Your task to perform on an android device: open app "AliExpress" Image 0: 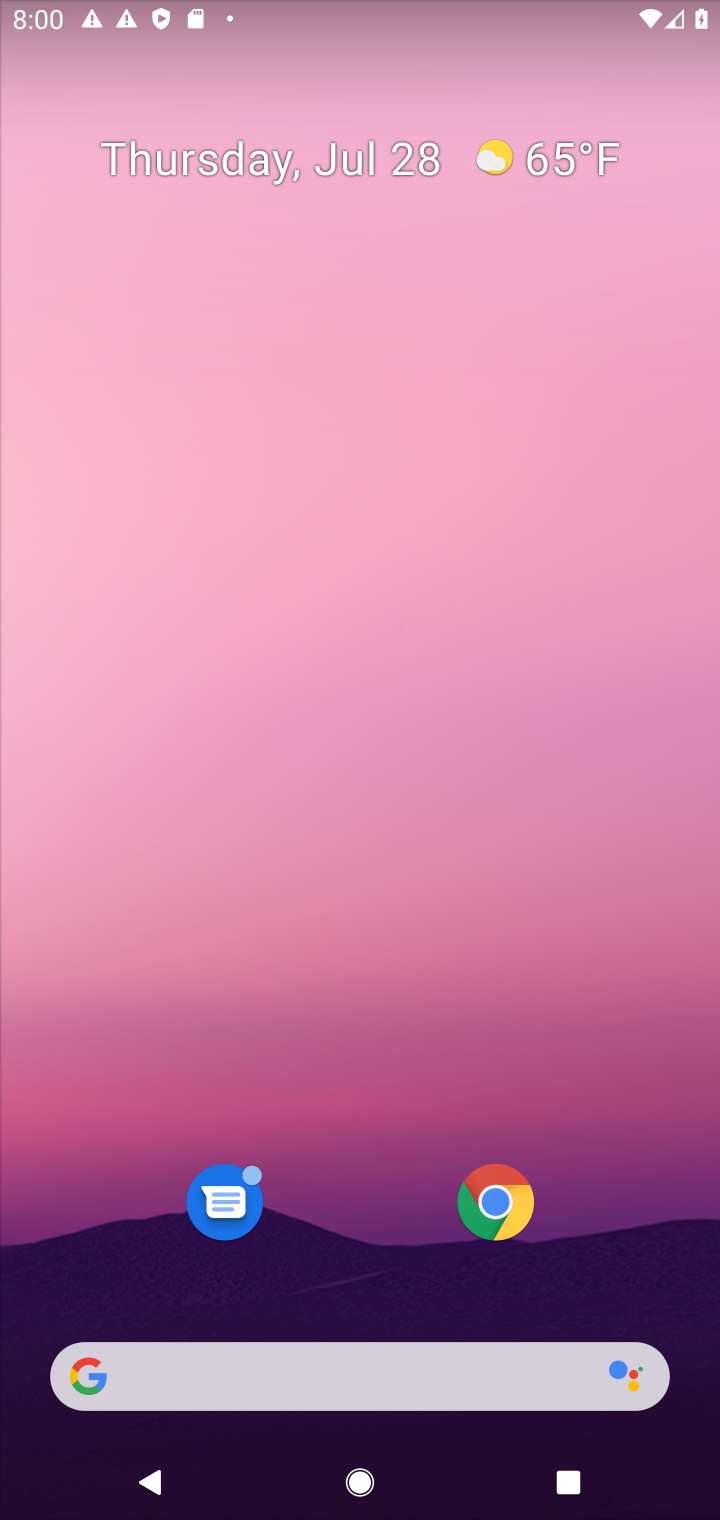
Step 0: press home button
Your task to perform on an android device: open app "AliExpress" Image 1: 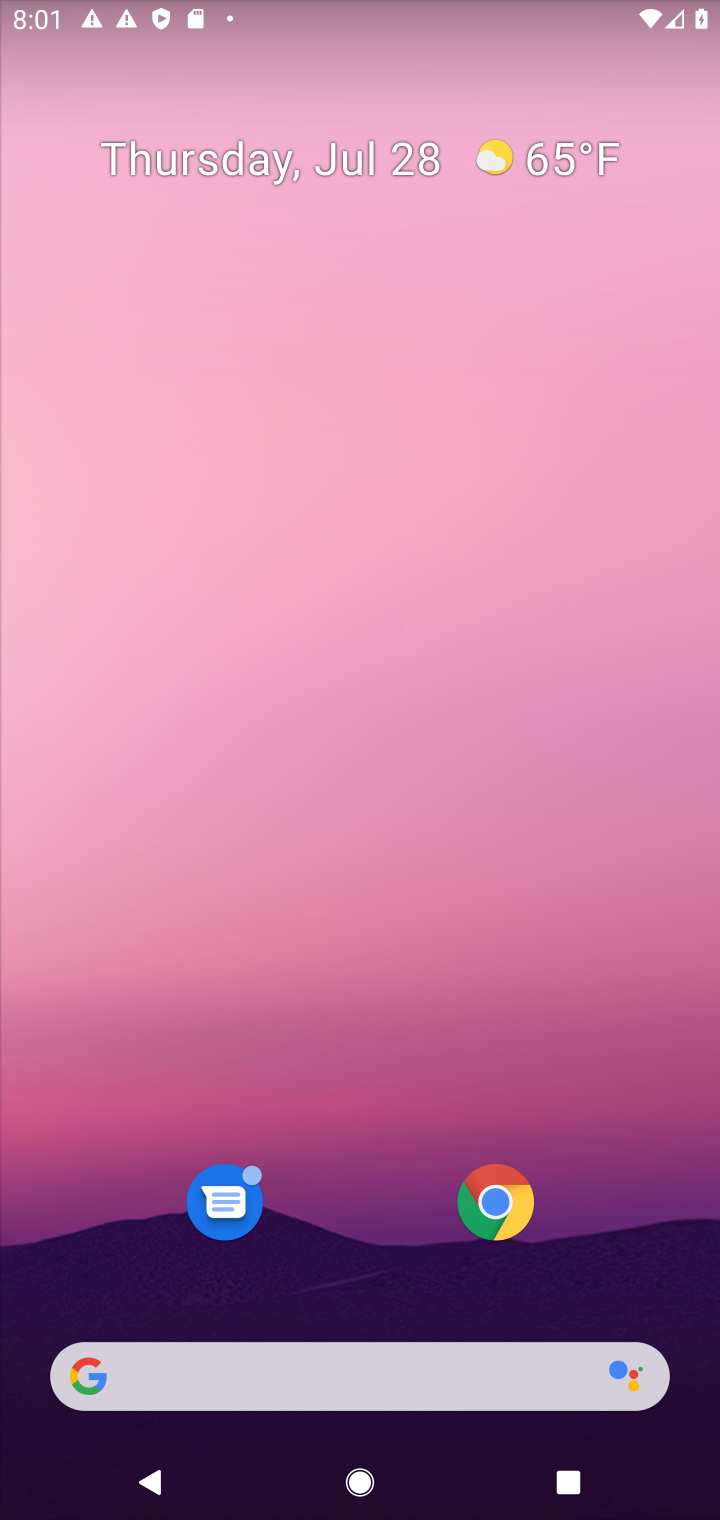
Step 1: drag from (380, 1283) to (424, 49)
Your task to perform on an android device: open app "AliExpress" Image 2: 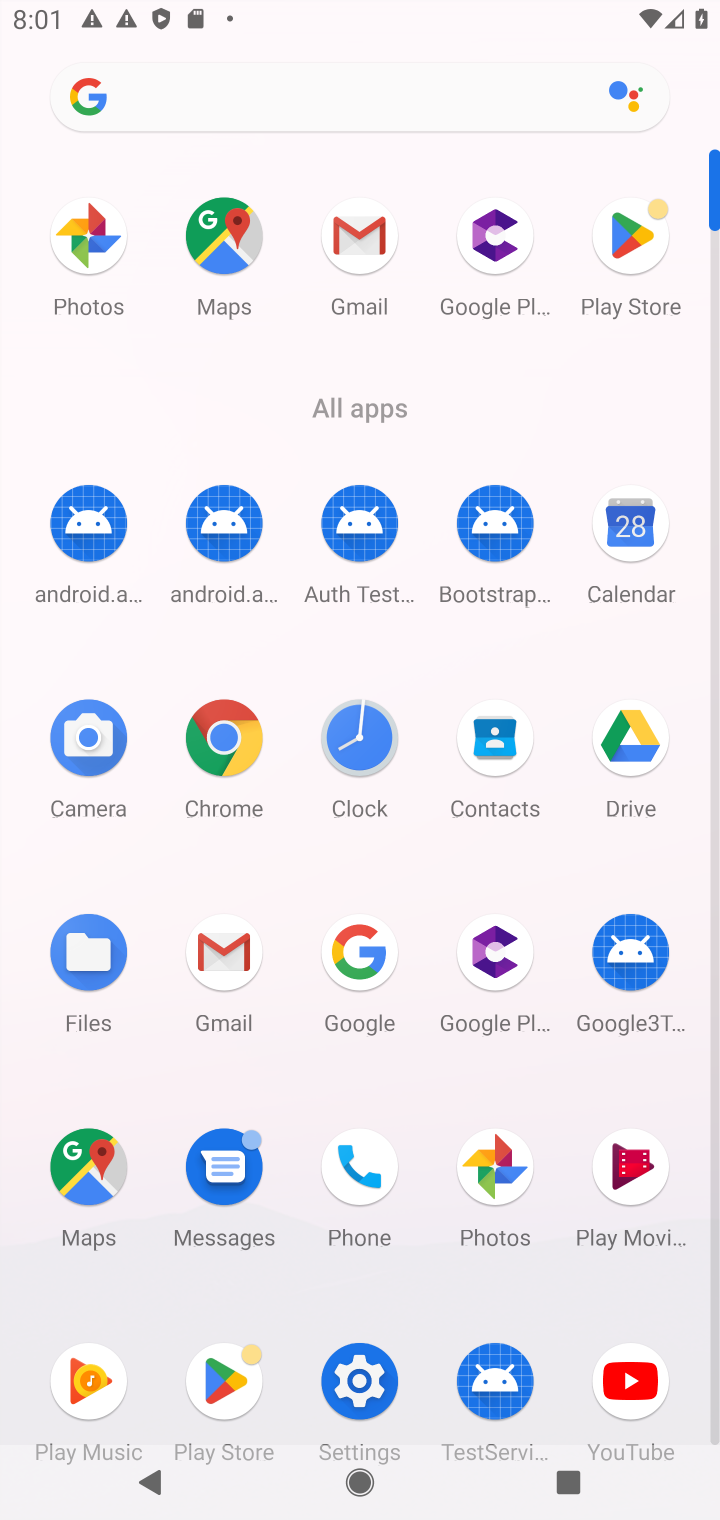
Step 2: click (217, 1373)
Your task to perform on an android device: open app "AliExpress" Image 3: 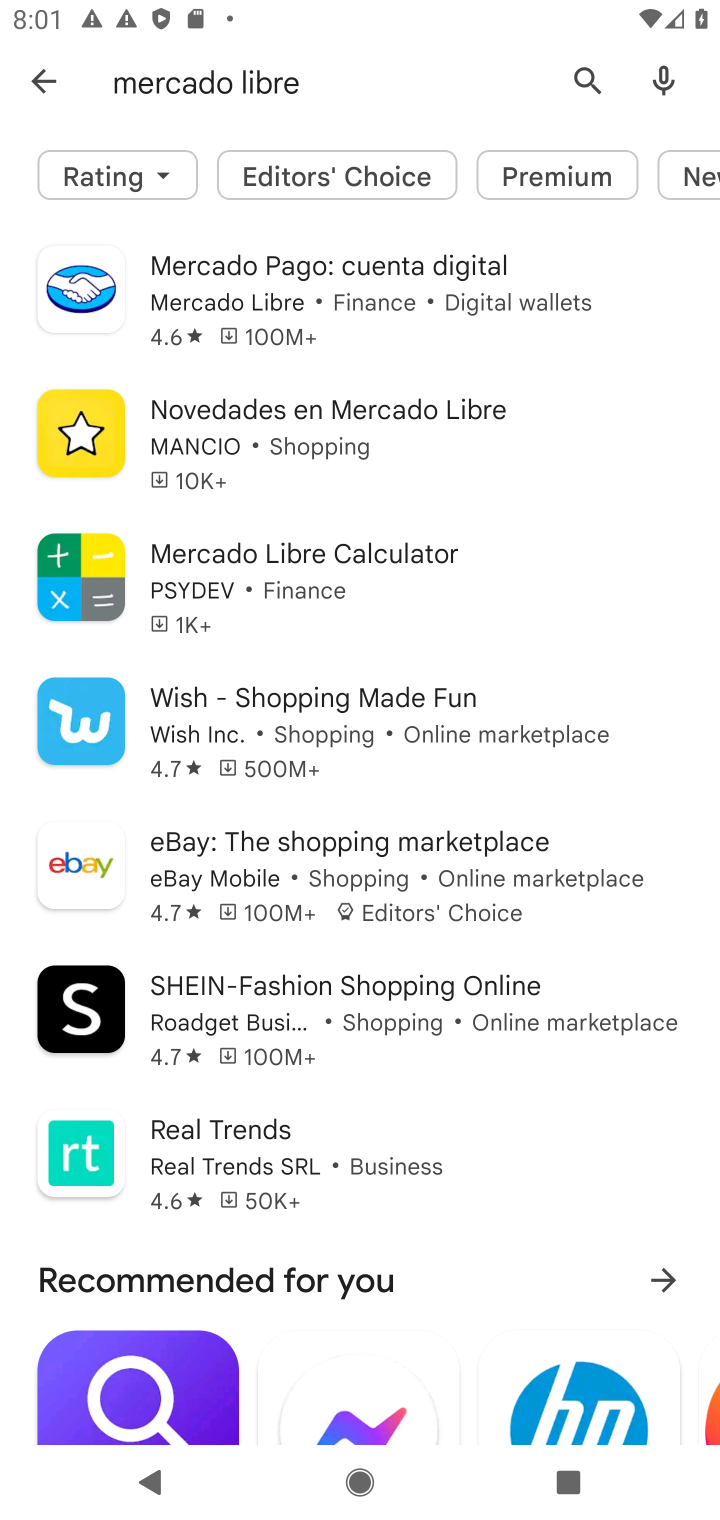
Step 3: click (586, 83)
Your task to perform on an android device: open app "AliExpress" Image 4: 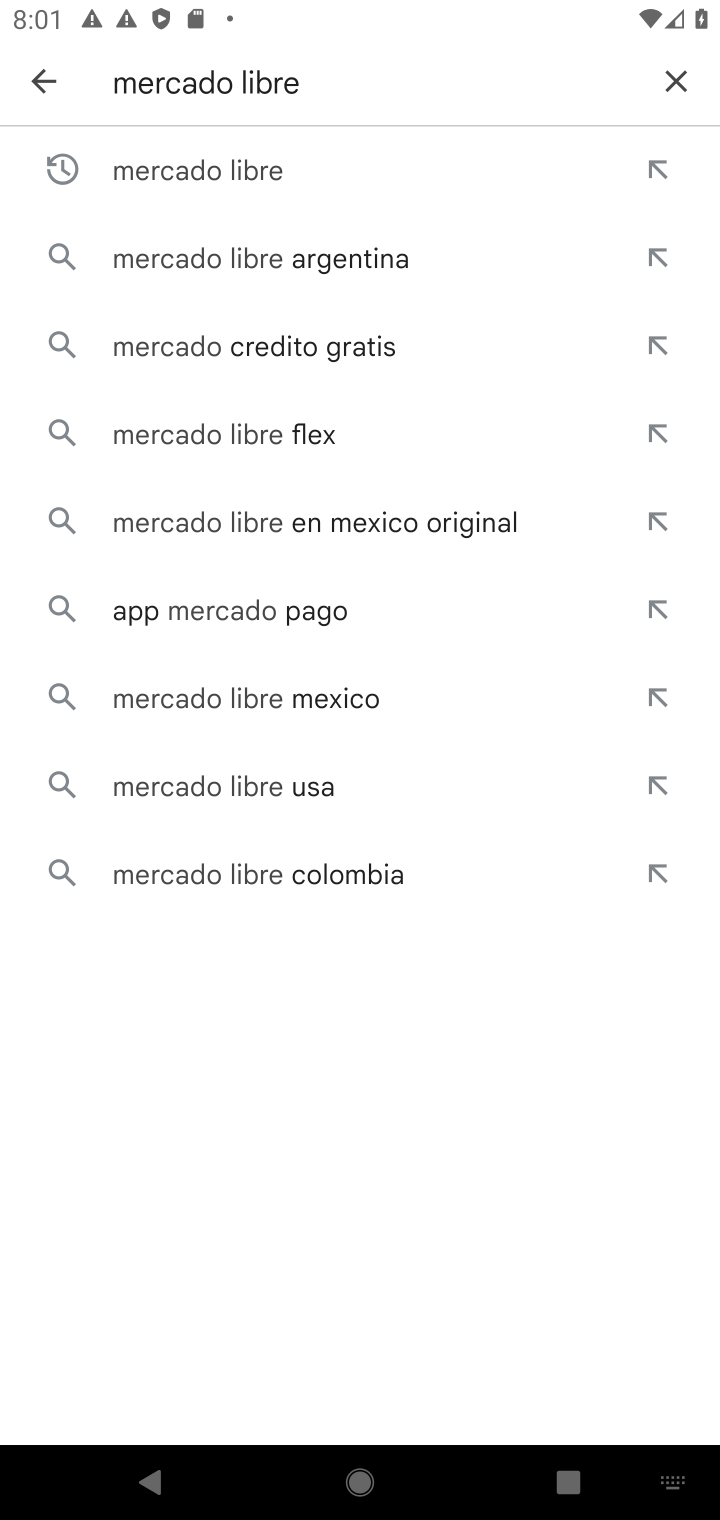
Step 4: click (673, 93)
Your task to perform on an android device: open app "AliExpress" Image 5: 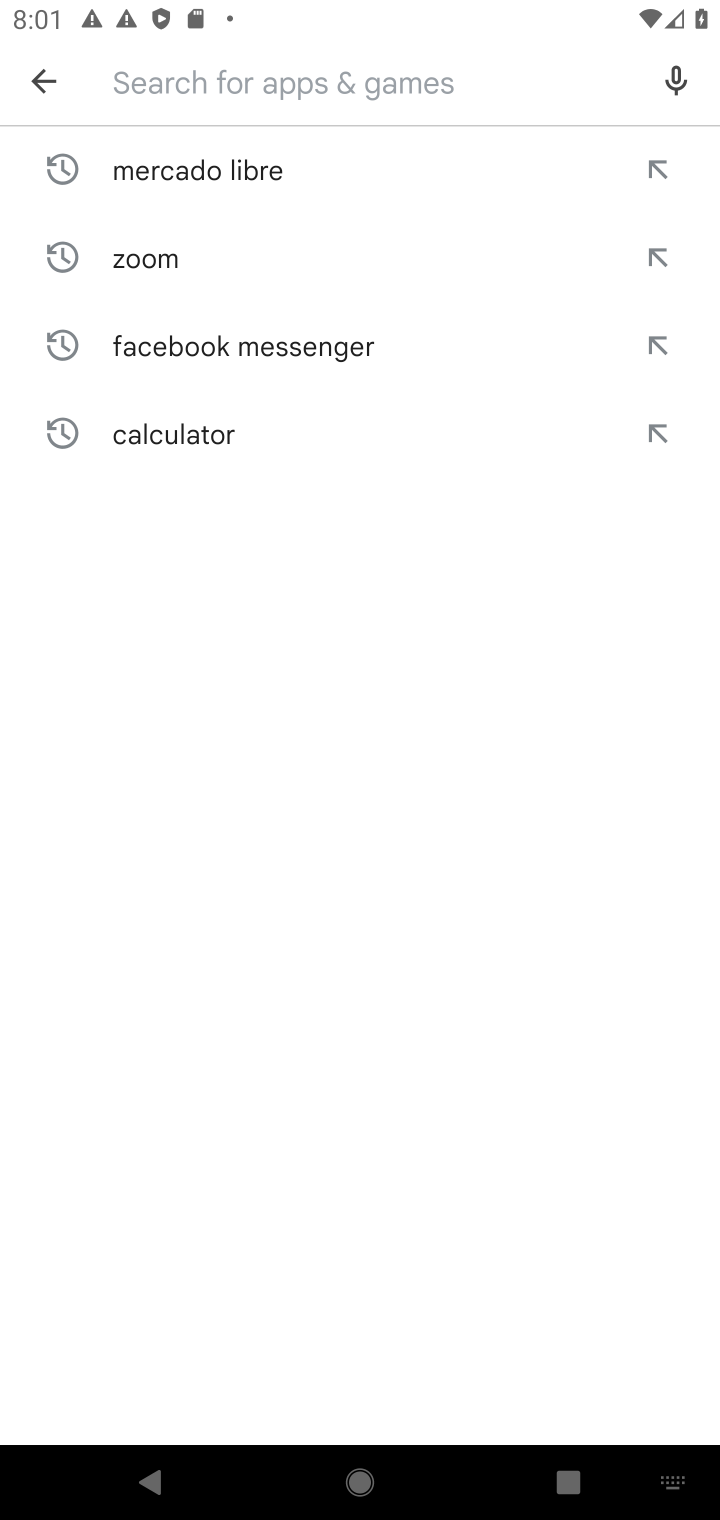
Step 5: type "AliExpress"
Your task to perform on an android device: open app "AliExpress" Image 6: 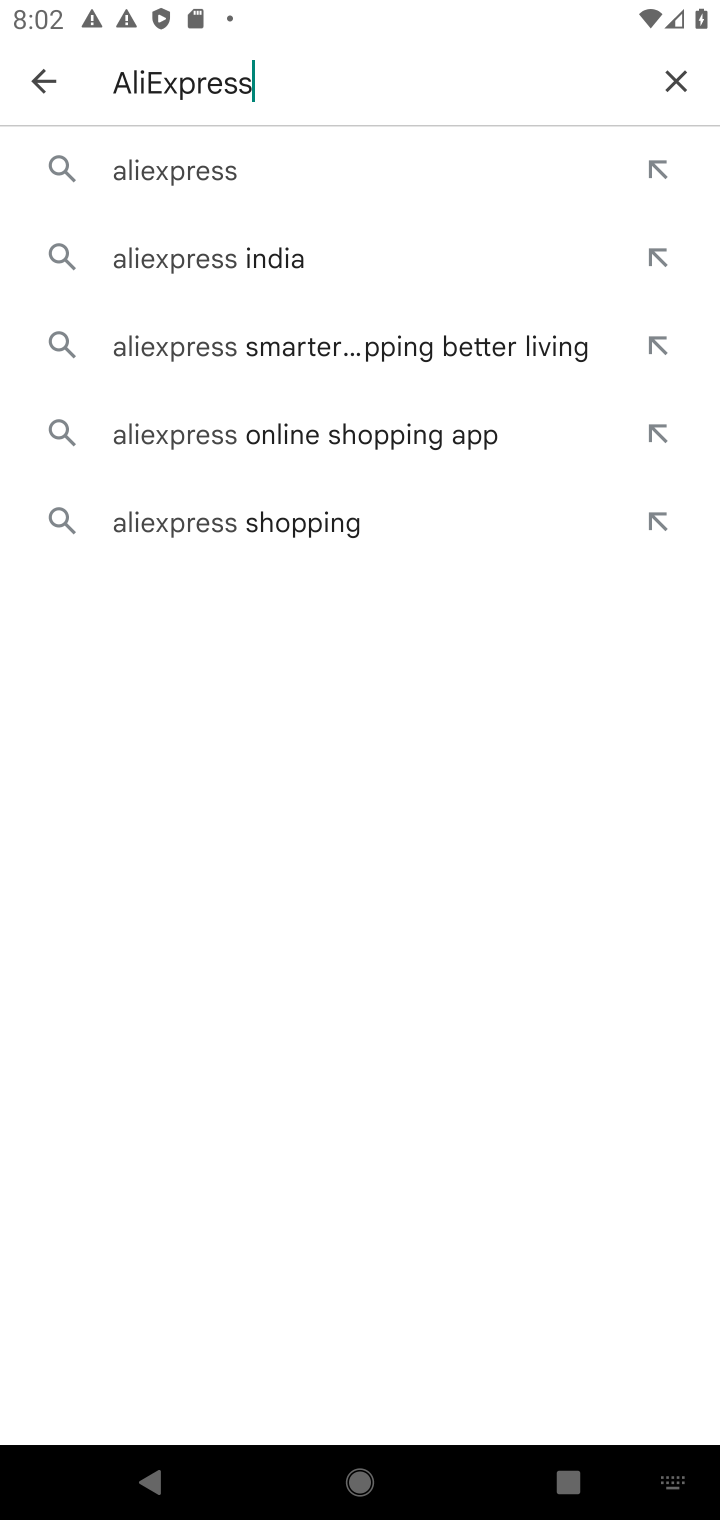
Step 6: click (247, 169)
Your task to perform on an android device: open app "AliExpress" Image 7: 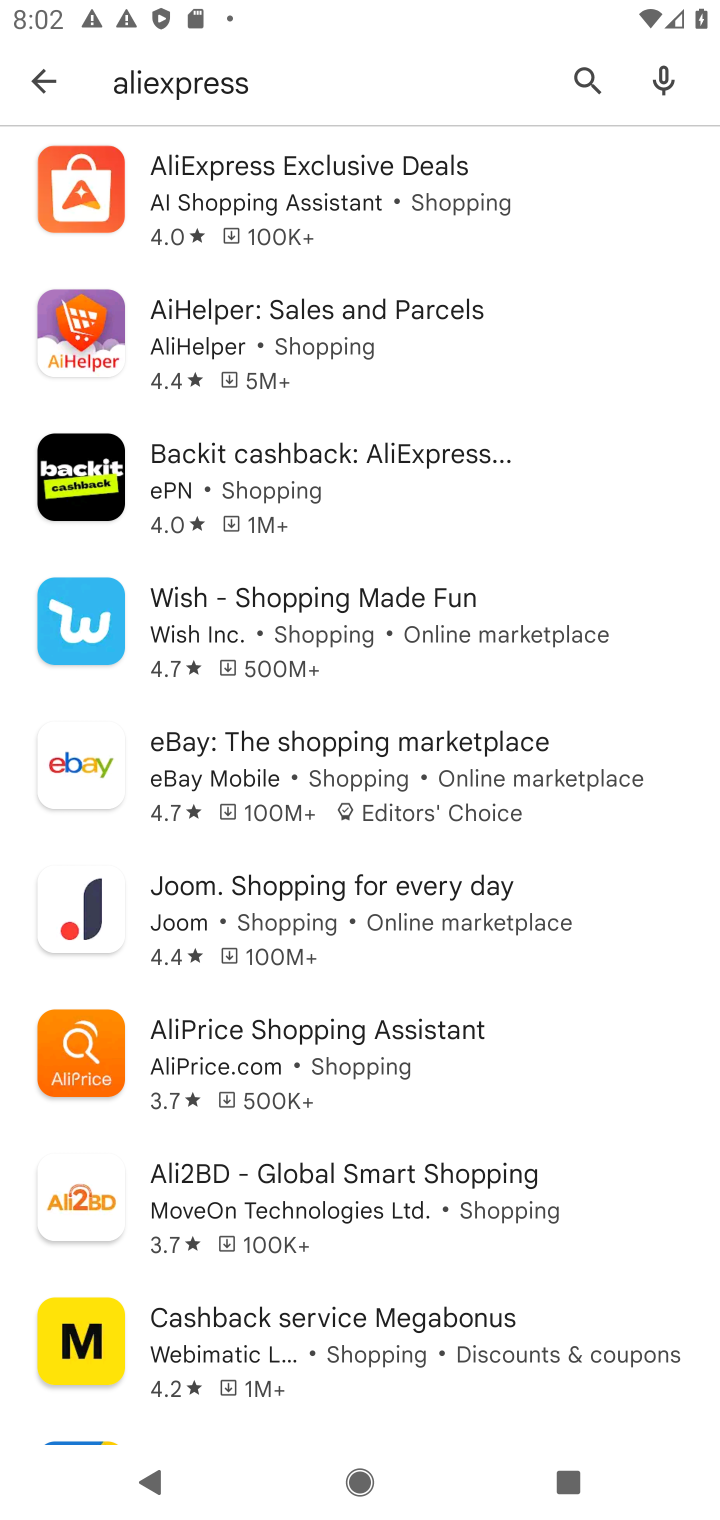
Step 7: click (224, 179)
Your task to perform on an android device: open app "AliExpress" Image 8: 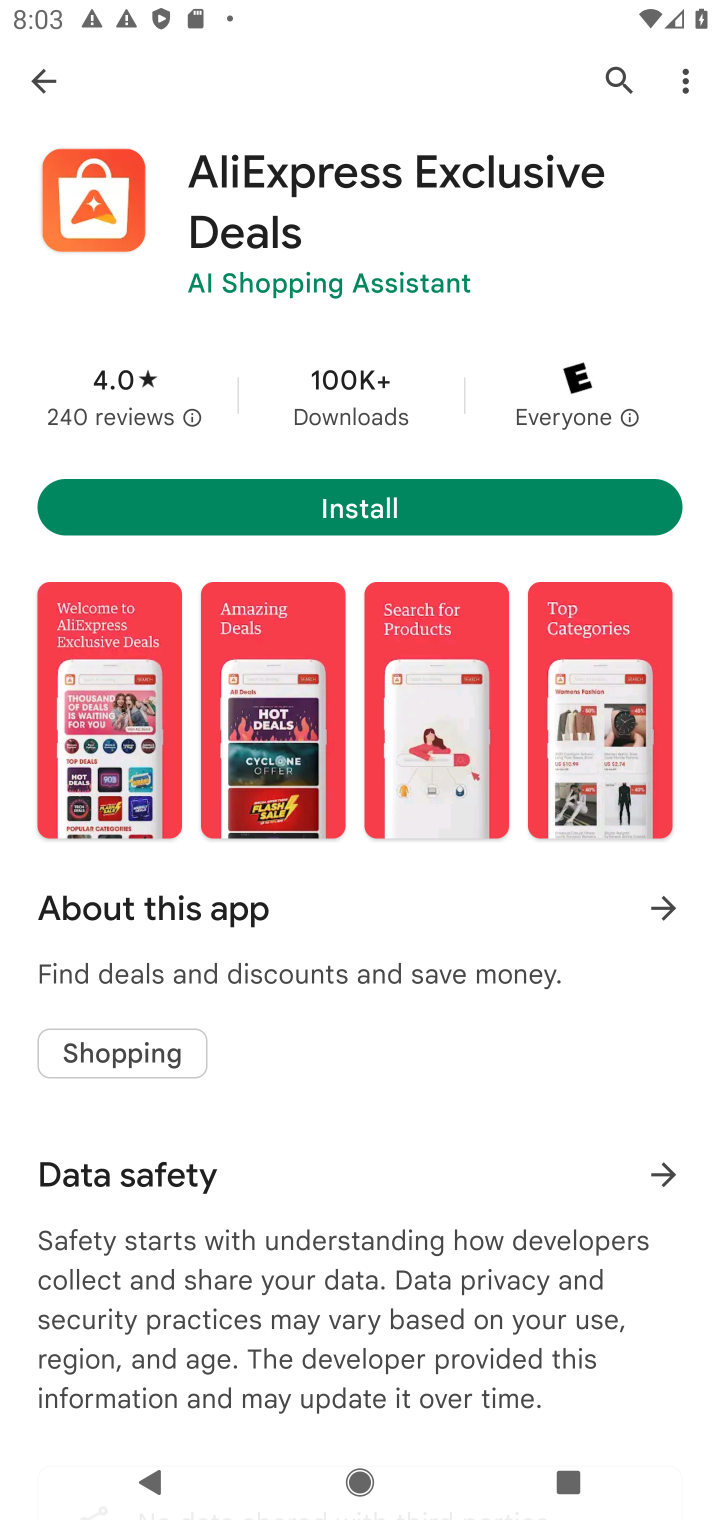
Step 8: click (373, 510)
Your task to perform on an android device: open app "AliExpress" Image 9: 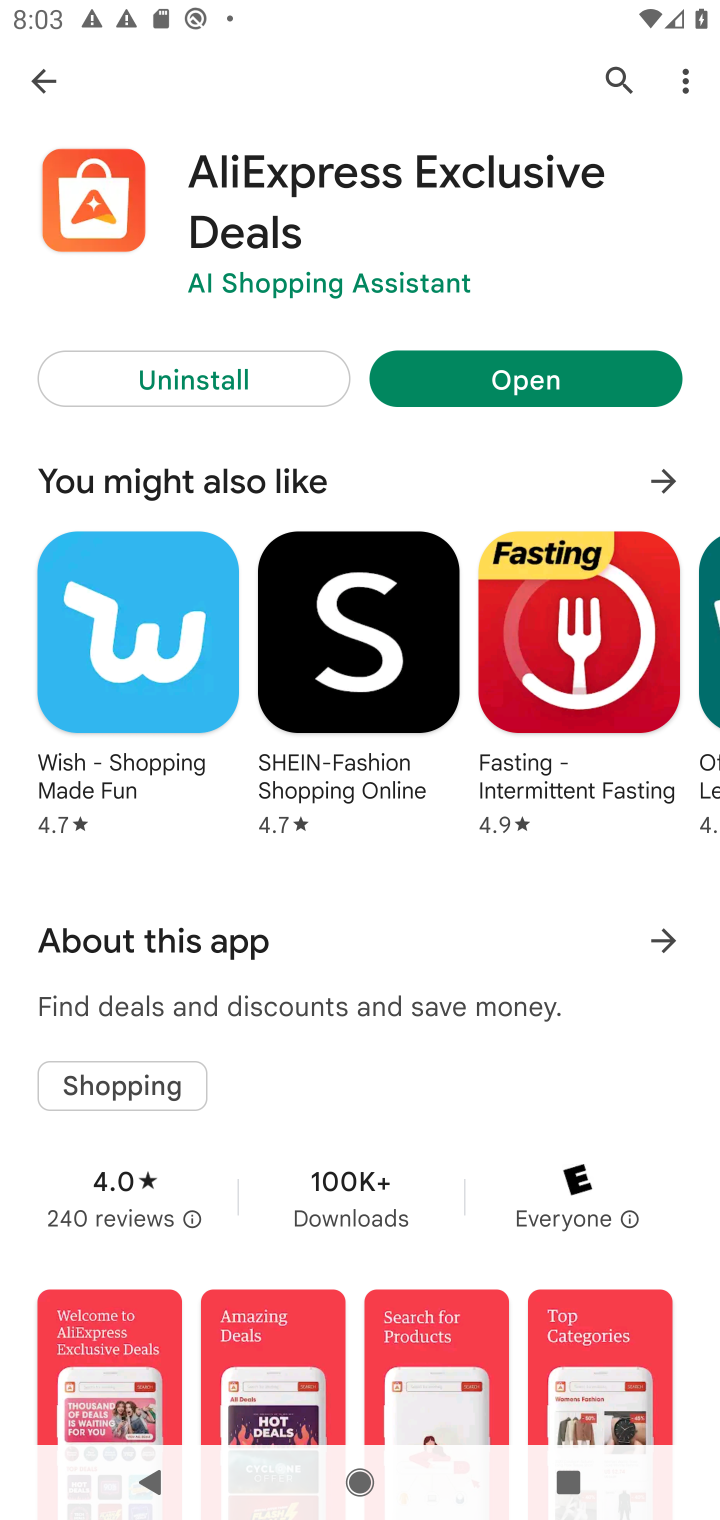
Step 9: task complete